Your task to perform on an android device: What's the weather today? Image 0: 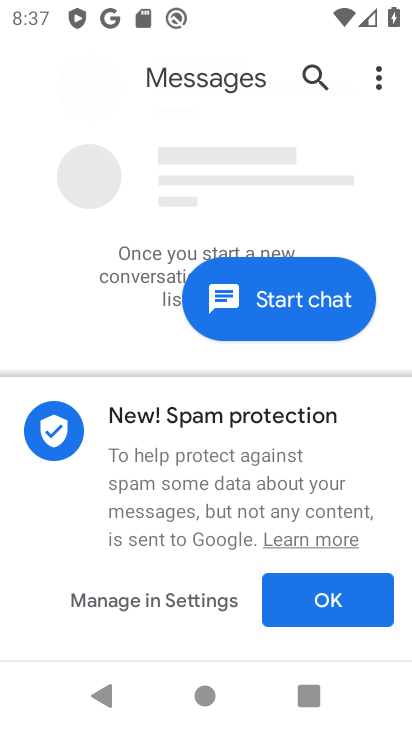
Step 0: press back button
Your task to perform on an android device: What's the weather today? Image 1: 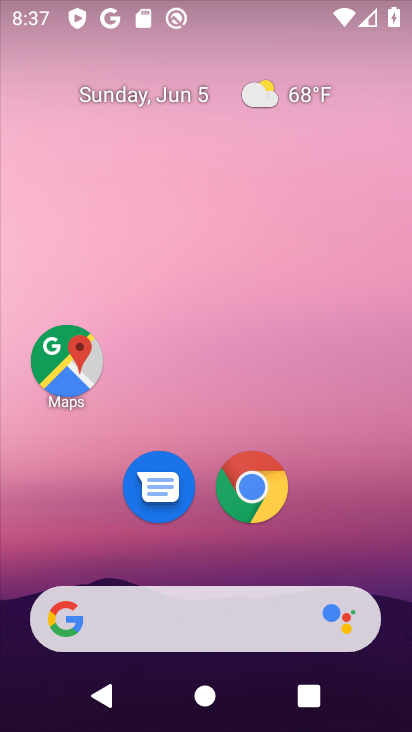
Step 1: drag from (202, 570) to (256, 77)
Your task to perform on an android device: What's the weather today? Image 2: 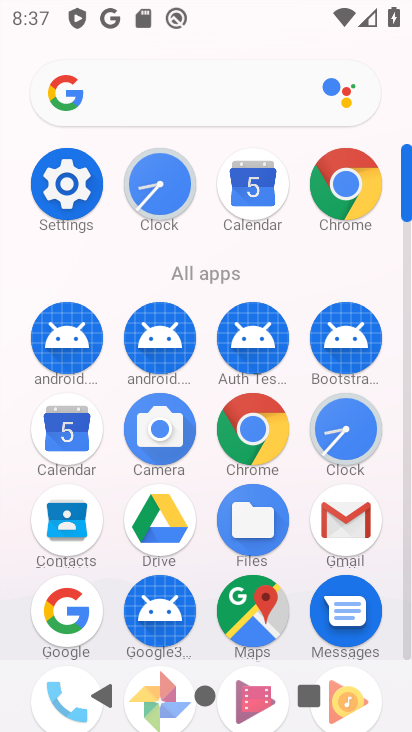
Step 2: press back button
Your task to perform on an android device: What's the weather today? Image 3: 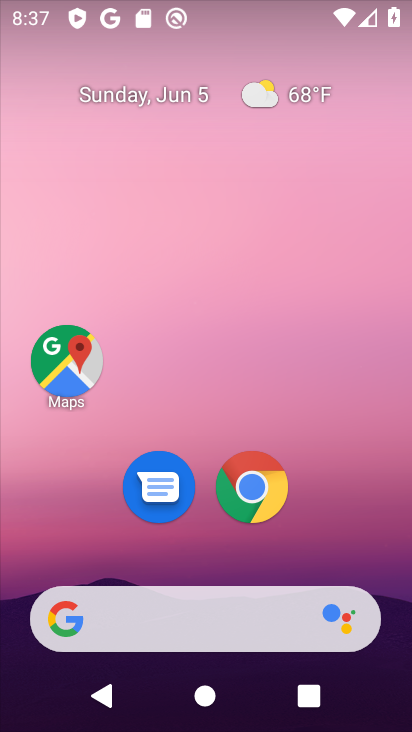
Step 3: click (274, 101)
Your task to perform on an android device: What's the weather today? Image 4: 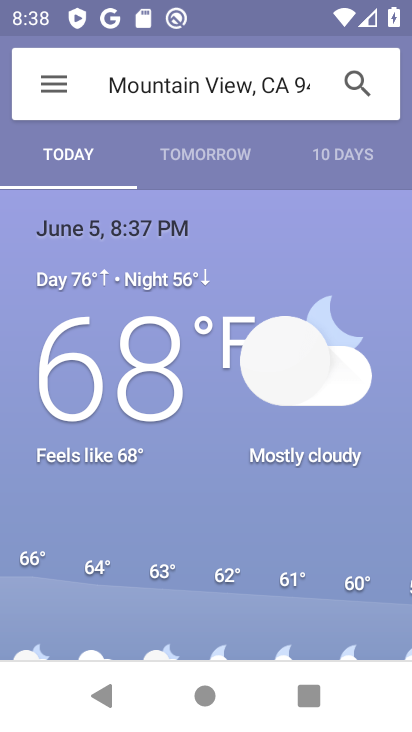
Step 4: task complete